Your task to perform on an android device: manage bookmarks in the chrome app Image 0: 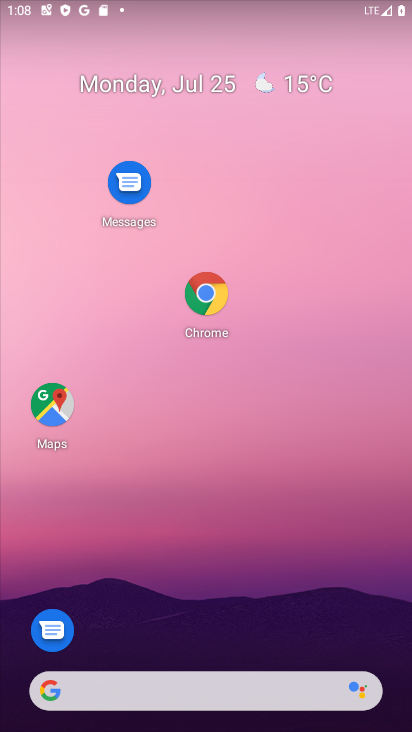
Step 0: press home button
Your task to perform on an android device: manage bookmarks in the chrome app Image 1: 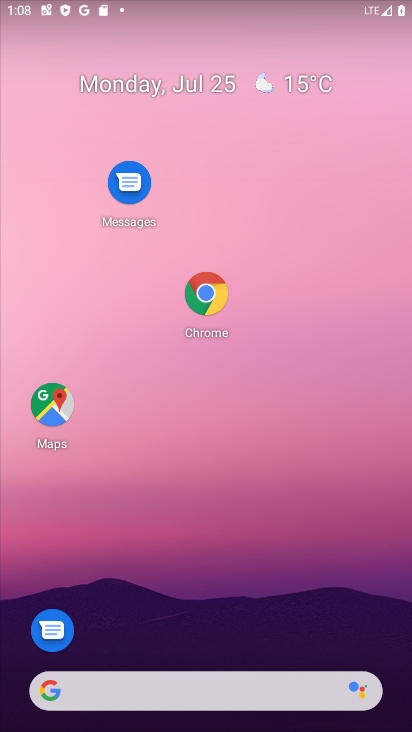
Step 1: click (191, 287)
Your task to perform on an android device: manage bookmarks in the chrome app Image 2: 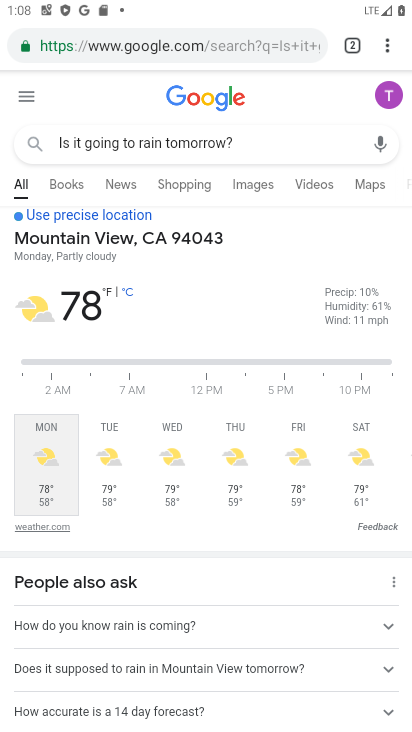
Step 2: task complete